Your task to perform on an android device: Play the last video I watched on Youtube Image 0: 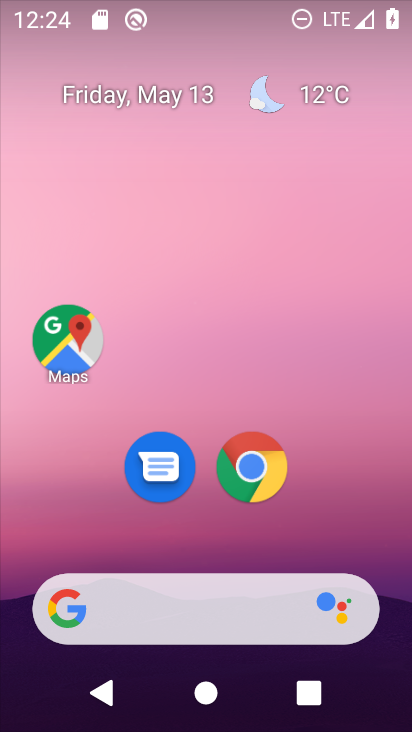
Step 0: drag from (323, 496) to (274, 29)
Your task to perform on an android device: Play the last video I watched on Youtube Image 1: 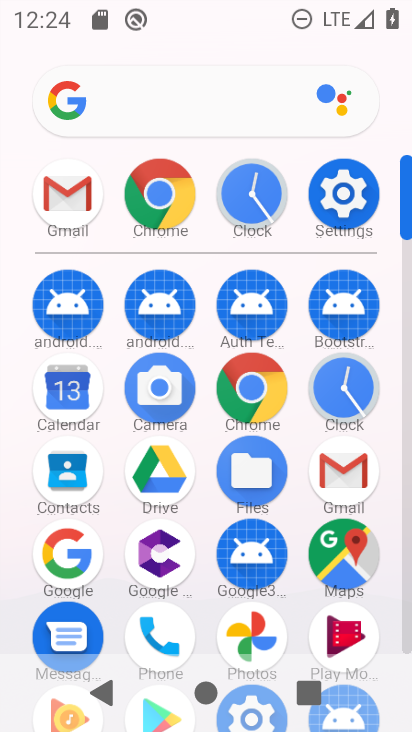
Step 1: drag from (8, 572) to (9, 227)
Your task to perform on an android device: Play the last video I watched on Youtube Image 2: 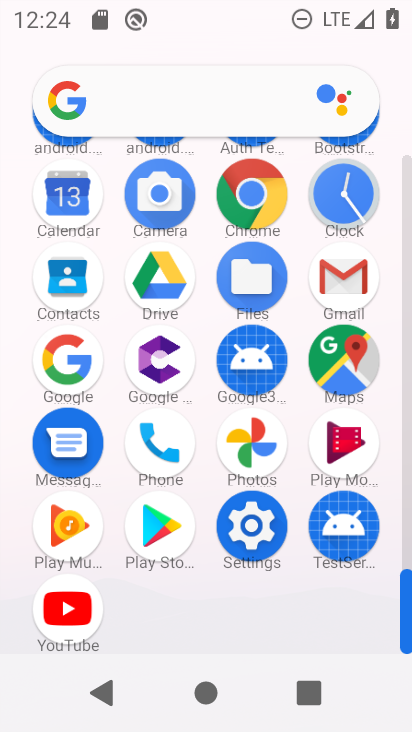
Step 2: click (70, 610)
Your task to perform on an android device: Play the last video I watched on Youtube Image 3: 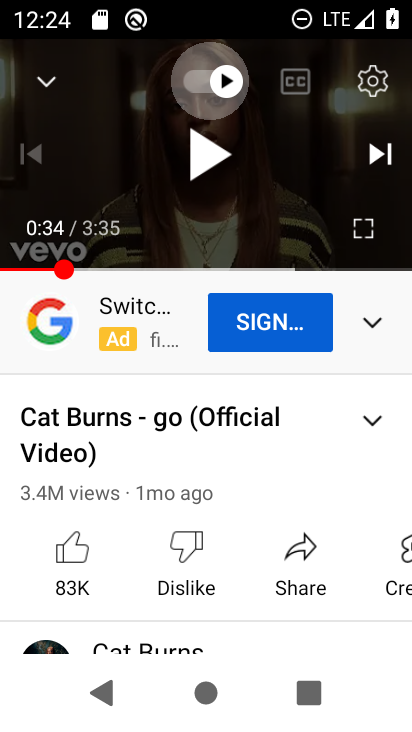
Step 3: click (207, 150)
Your task to perform on an android device: Play the last video I watched on Youtube Image 4: 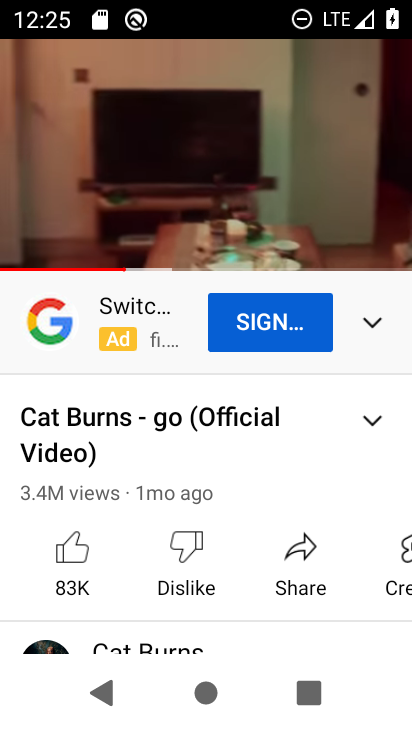
Step 4: task complete